Your task to perform on an android device: Open CNN.com Image 0: 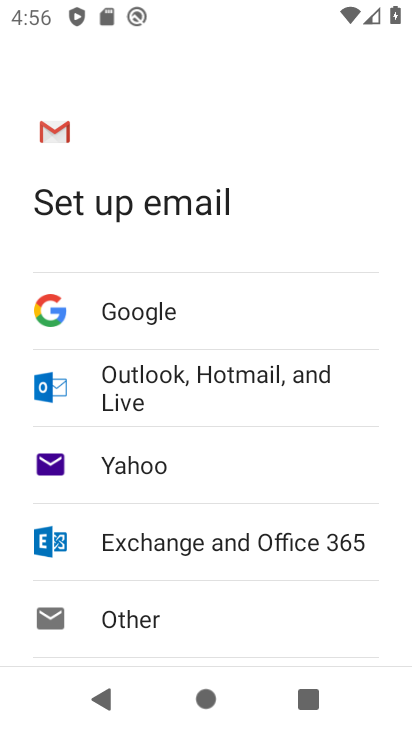
Step 0: press home button
Your task to perform on an android device: Open CNN.com Image 1: 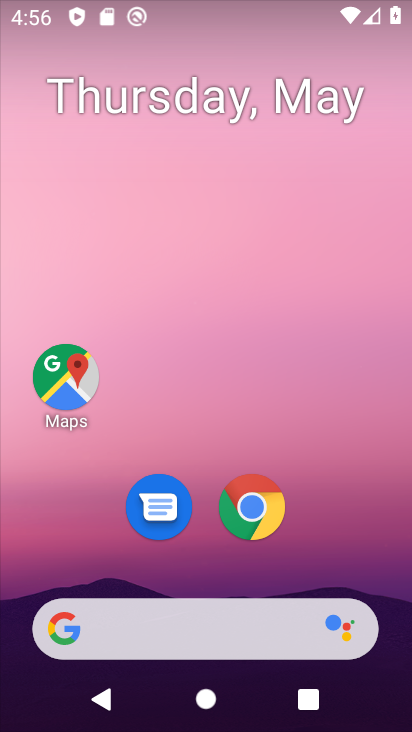
Step 1: click (252, 502)
Your task to perform on an android device: Open CNN.com Image 2: 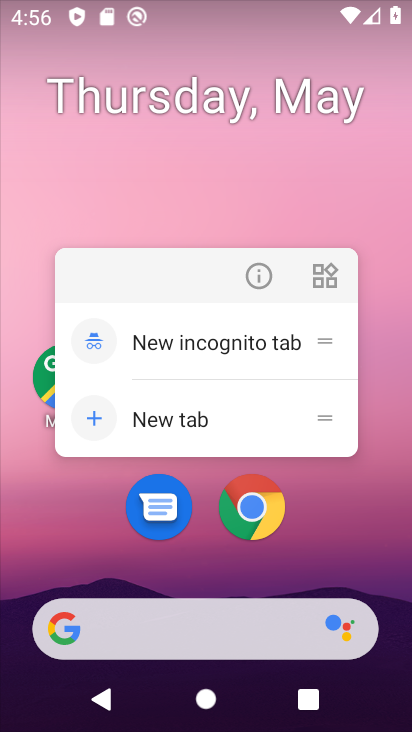
Step 2: click (259, 509)
Your task to perform on an android device: Open CNN.com Image 3: 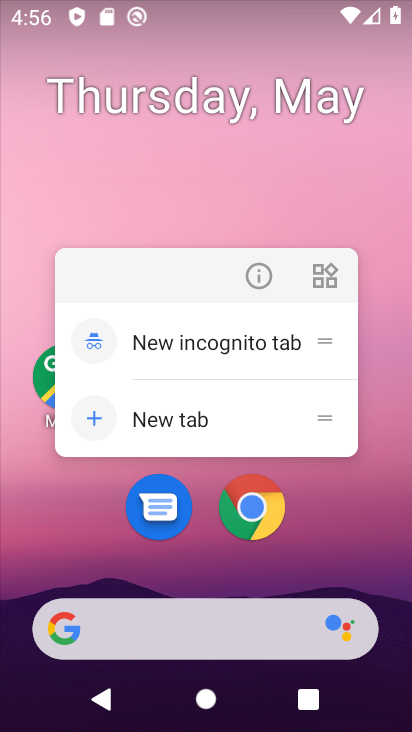
Step 3: click (255, 512)
Your task to perform on an android device: Open CNN.com Image 4: 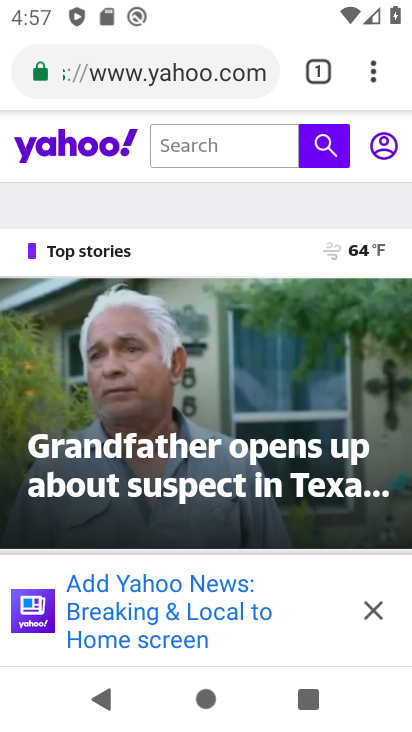
Step 4: click (226, 77)
Your task to perform on an android device: Open CNN.com Image 5: 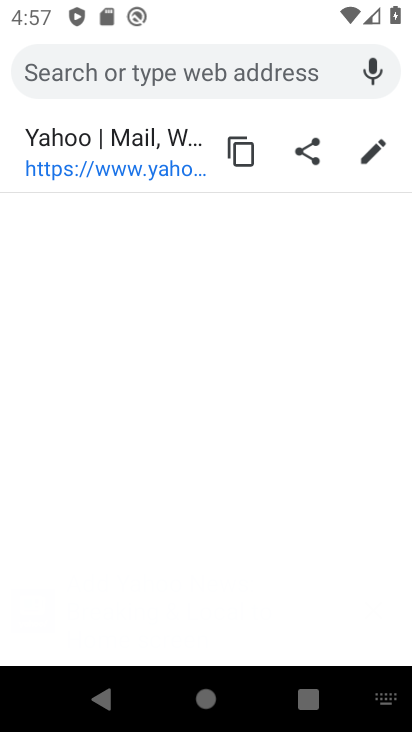
Step 5: type "cnn.com"
Your task to perform on an android device: Open CNN.com Image 6: 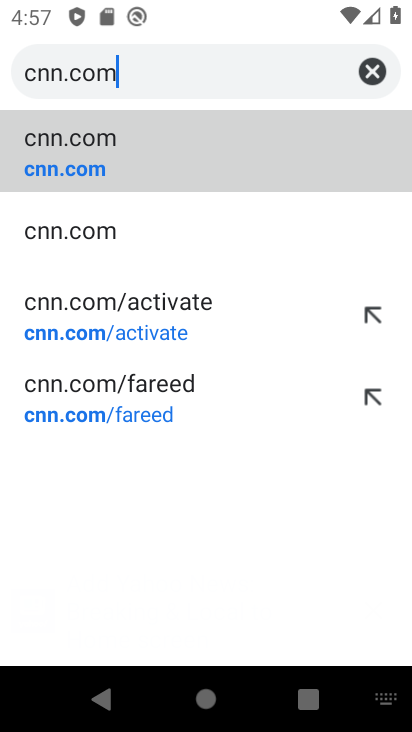
Step 6: click (102, 168)
Your task to perform on an android device: Open CNN.com Image 7: 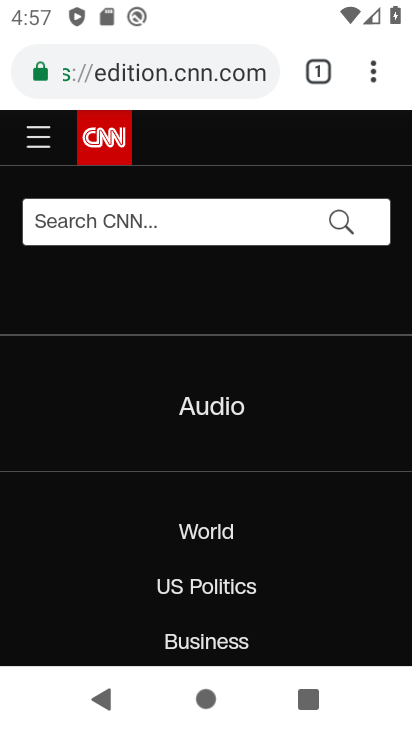
Step 7: task complete